Your task to perform on an android device: turn off data saver in the chrome app Image 0: 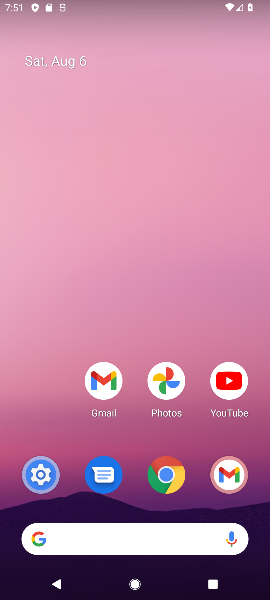
Step 0: click (168, 463)
Your task to perform on an android device: turn off data saver in the chrome app Image 1: 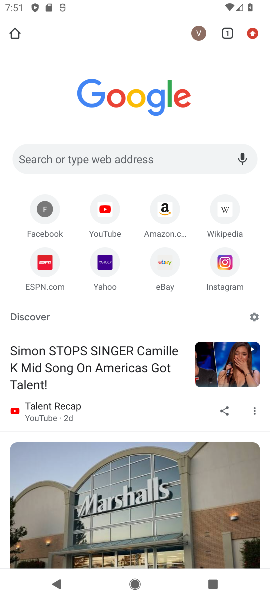
Step 1: click (249, 36)
Your task to perform on an android device: turn off data saver in the chrome app Image 2: 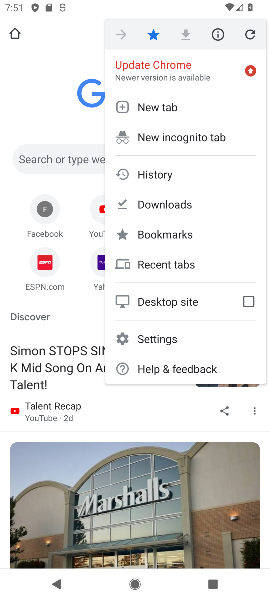
Step 2: click (148, 341)
Your task to perform on an android device: turn off data saver in the chrome app Image 3: 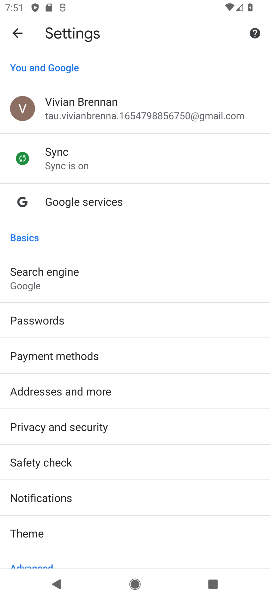
Step 3: drag from (116, 496) to (121, 216)
Your task to perform on an android device: turn off data saver in the chrome app Image 4: 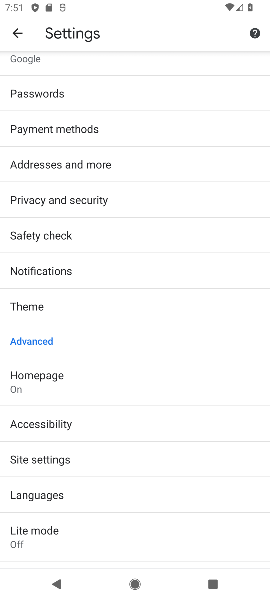
Step 4: click (84, 526)
Your task to perform on an android device: turn off data saver in the chrome app Image 5: 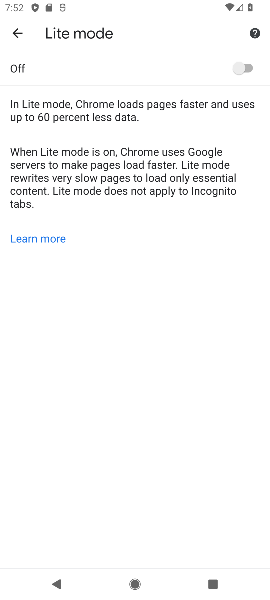
Step 5: task complete